Your task to perform on an android device: Open Google Chrome Image 0: 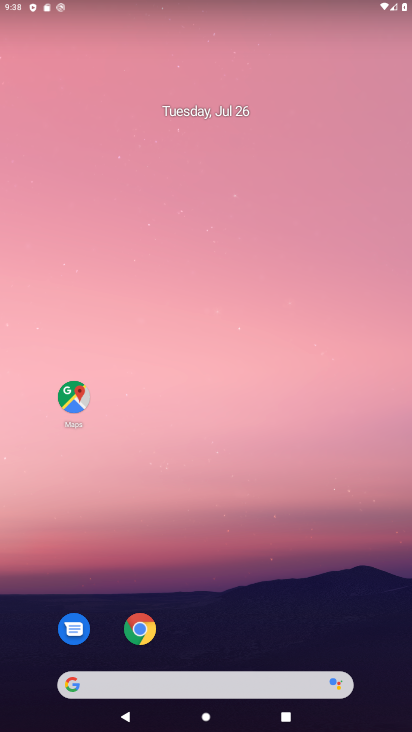
Step 0: click (133, 640)
Your task to perform on an android device: Open Google Chrome Image 1: 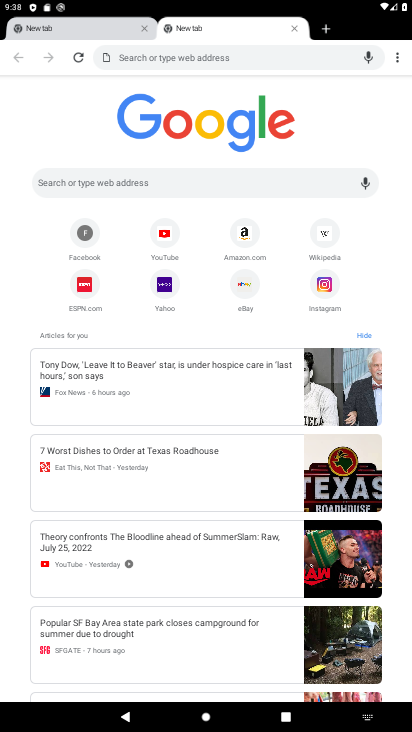
Step 1: task complete